Your task to perform on an android device: change text size in settings app Image 0: 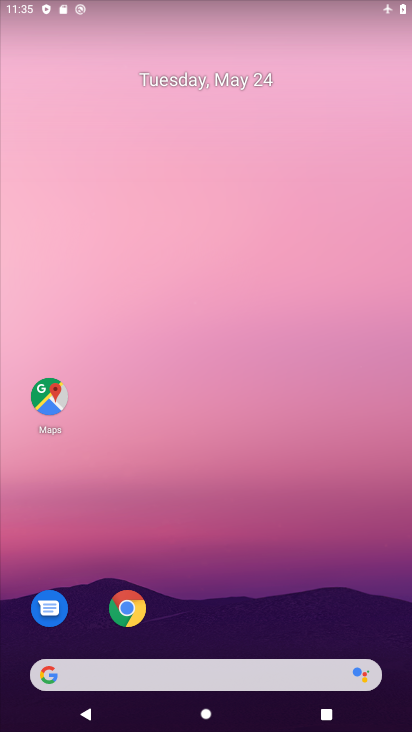
Step 0: drag from (285, 639) to (271, 280)
Your task to perform on an android device: change text size in settings app Image 1: 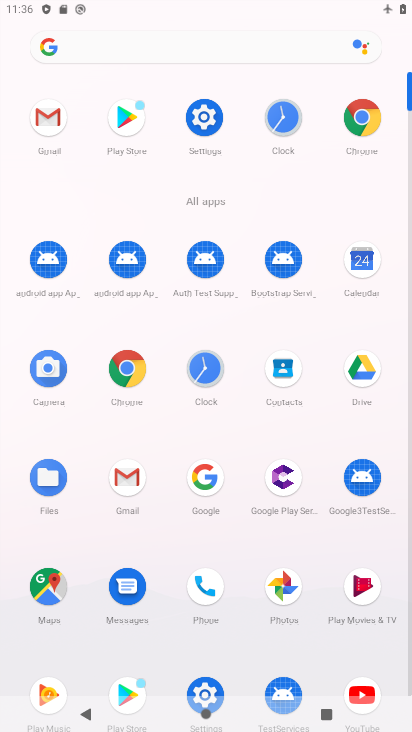
Step 1: click (210, 147)
Your task to perform on an android device: change text size in settings app Image 2: 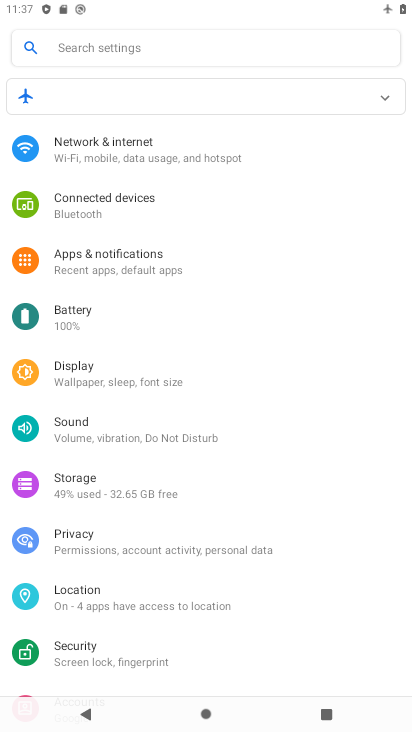
Step 2: click (116, 382)
Your task to perform on an android device: change text size in settings app Image 3: 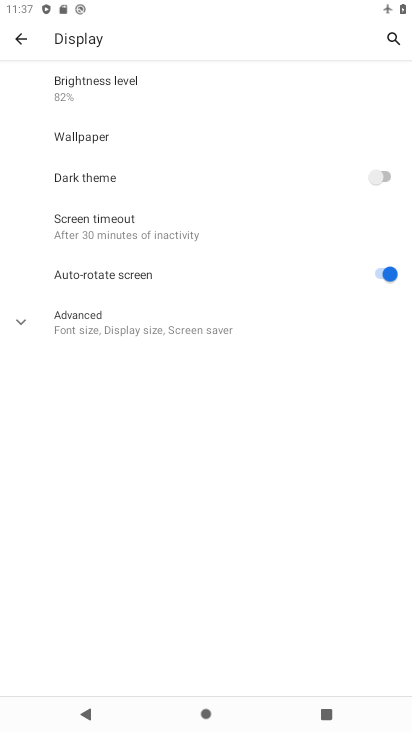
Step 3: click (133, 313)
Your task to perform on an android device: change text size in settings app Image 4: 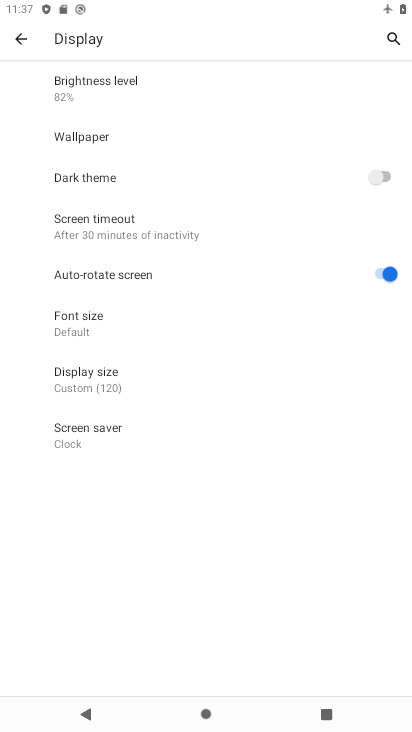
Step 4: click (145, 321)
Your task to perform on an android device: change text size in settings app Image 5: 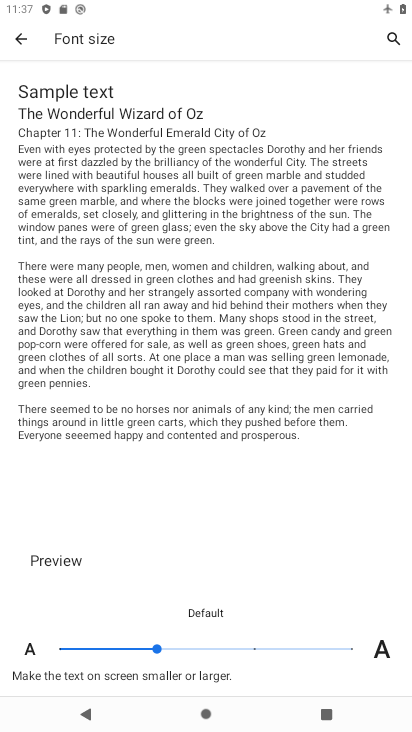
Step 5: click (127, 643)
Your task to perform on an android device: change text size in settings app Image 6: 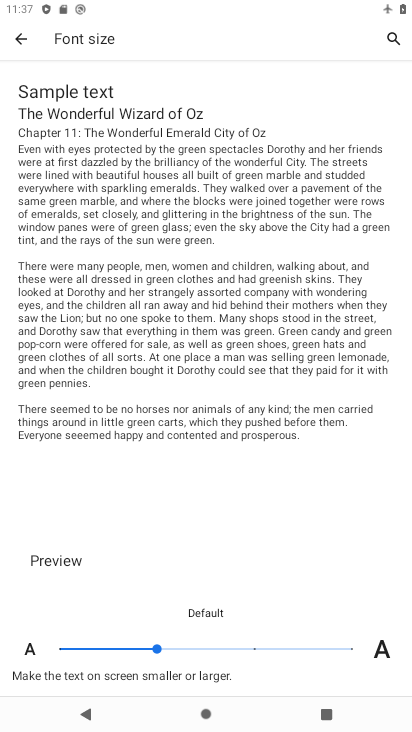
Step 6: task complete